Your task to perform on an android device: uninstall "Microsoft Authenticator" Image 0: 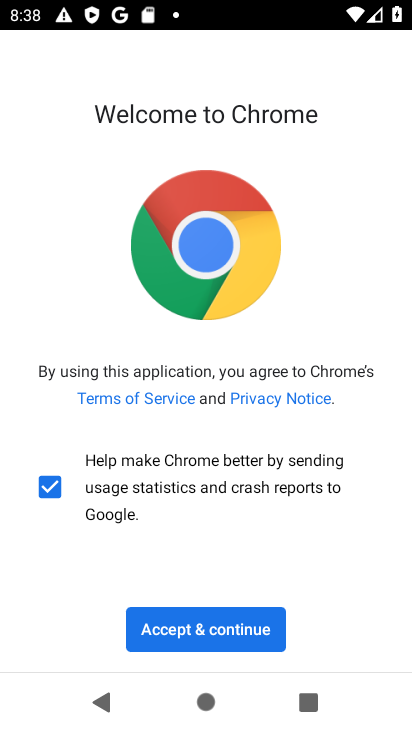
Step 0: press home button
Your task to perform on an android device: uninstall "Microsoft Authenticator" Image 1: 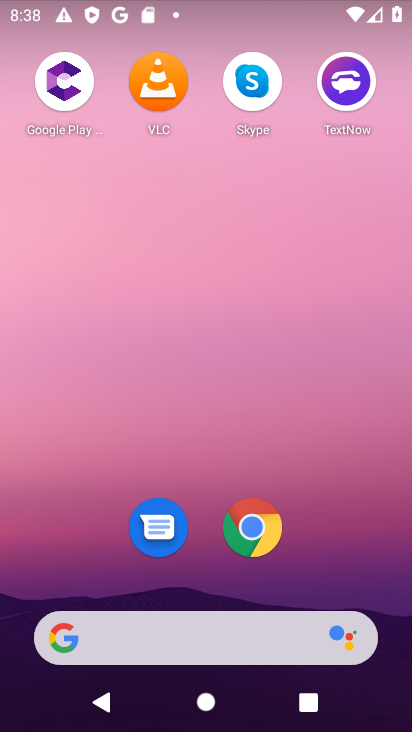
Step 1: click (251, 636)
Your task to perform on an android device: uninstall "Microsoft Authenticator" Image 2: 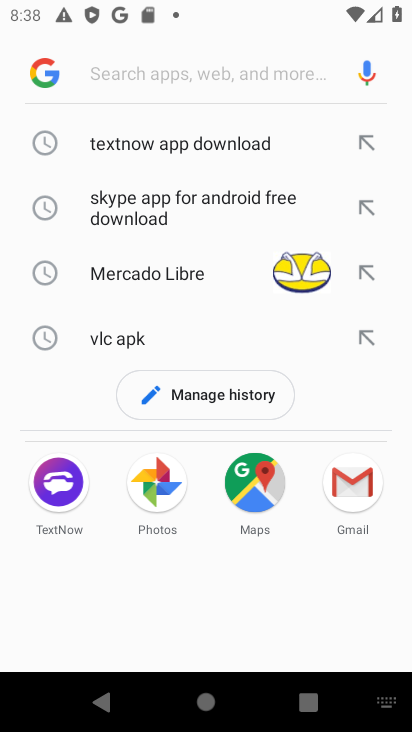
Step 2: type "microsoft authenticator"
Your task to perform on an android device: uninstall "Microsoft Authenticator" Image 3: 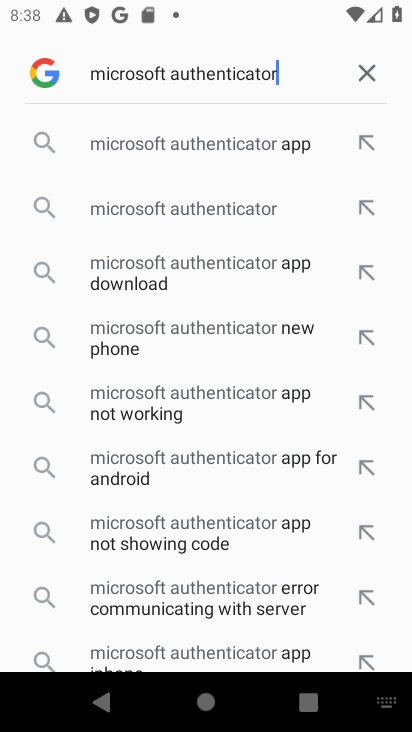
Step 3: click (264, 145)
Your task to perform on an android device: uninstall "Microsoft Authenticator" Image 4: 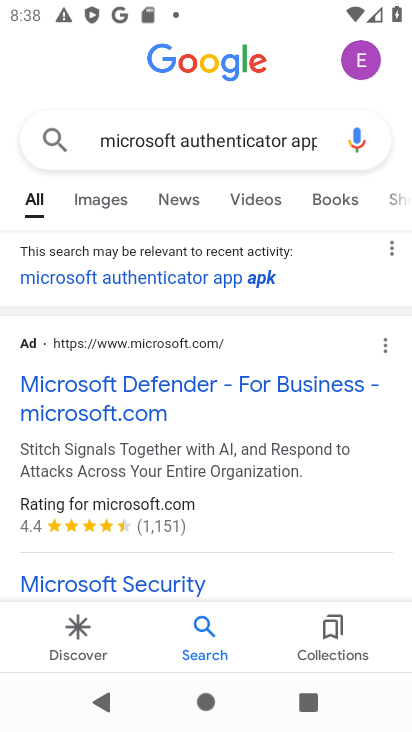
Step 4: drag from (281, 470) to (279, 360)
Your task to perform on an android device: uninstall "Microsoft Authenticator" Image 5: 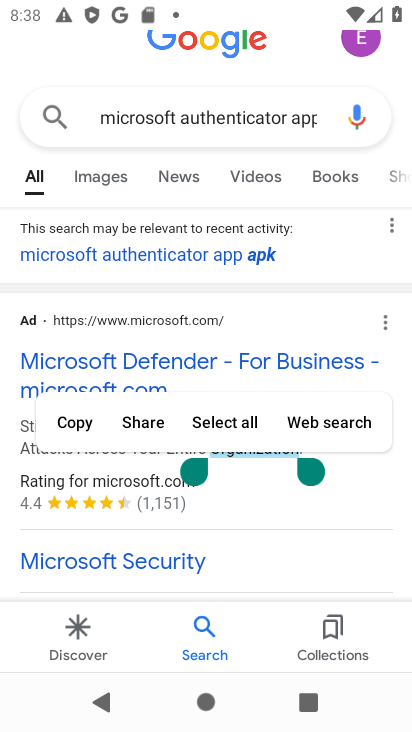
Step 5: click (276, 536)
Your task to perform on an android device: uninstall "Microsoft Authenticator" Image 6: 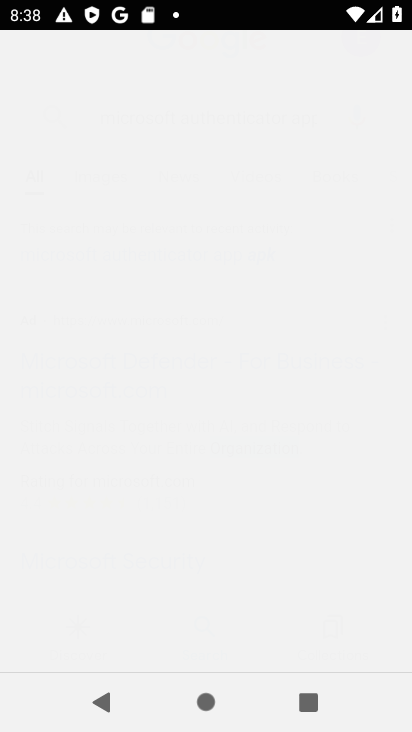
Step 6: click (276, 536)
Your task to perform on an android device: uninstall "Microsoft Authenticator" Image 7: 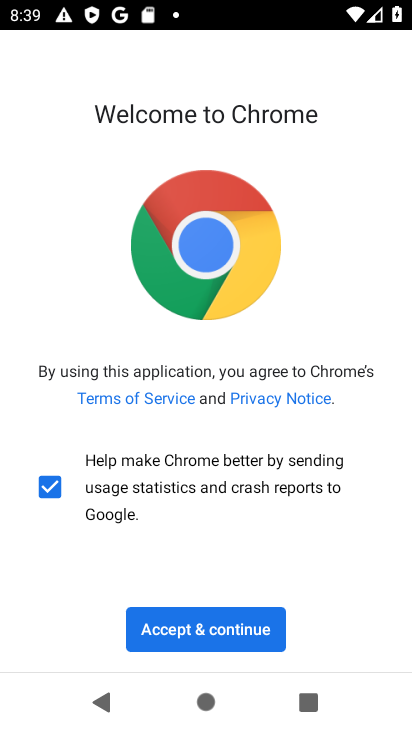
Step 7: task complete